Your task to perform on an android device: add a contact in the contacts app Image 0: 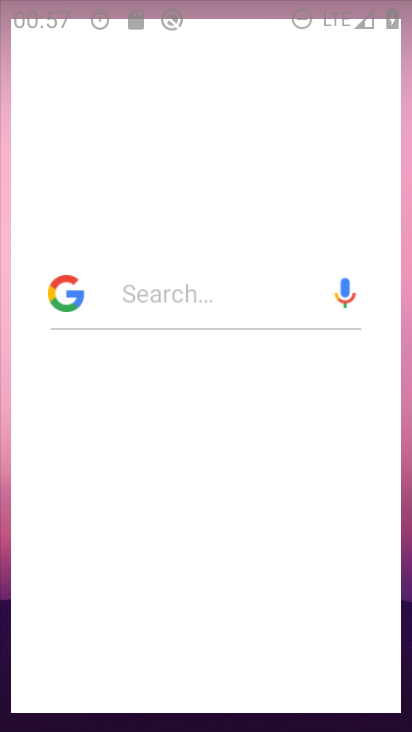
Step 0: drag from (329, 400) to (328, 308)
Your task to perform on an android device: add a contact in the contacts app Image 1: 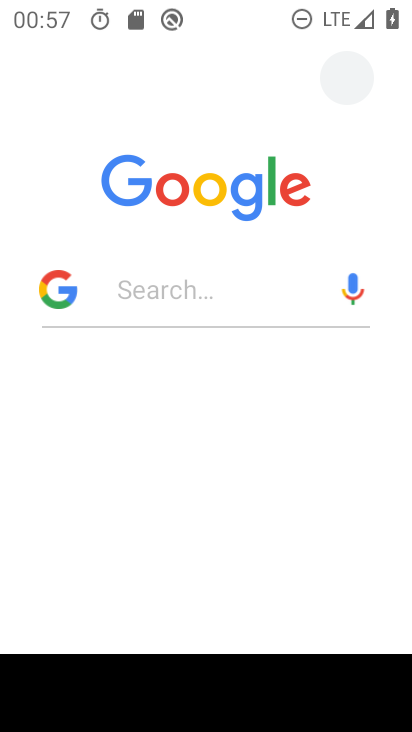
Step 1: press home button
Your task to perform on an android device: add a contact in the contacts app Image 2: 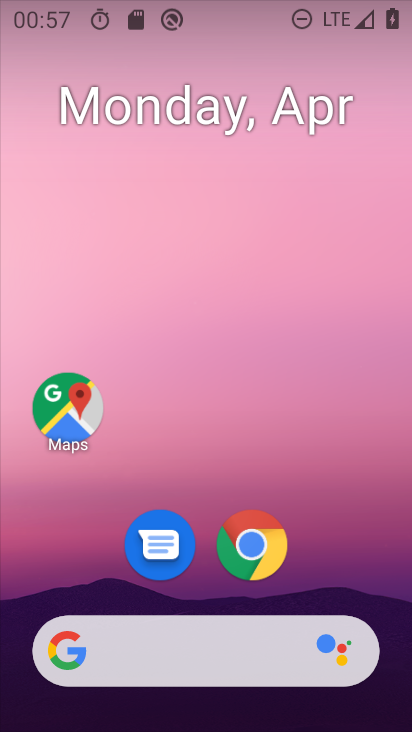
Step 2: click (326, 238)
Your task to perform on an android device: add a contact in the contacts app Image 3: 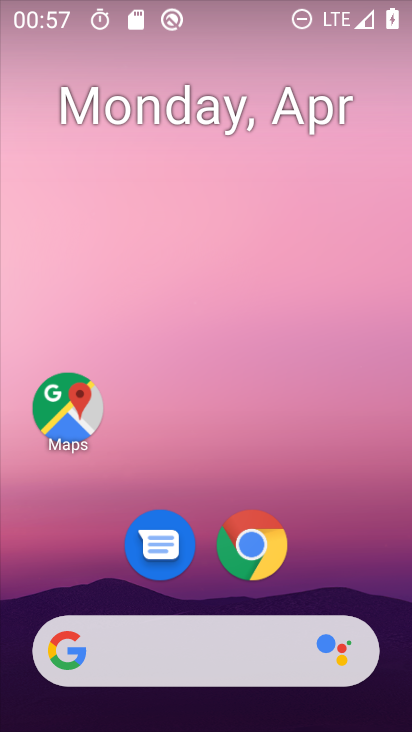
Step 3: drag from (326, 576) to (322, 295)
Your task to perform on an android device: add a contact in the contacts app Image 4: 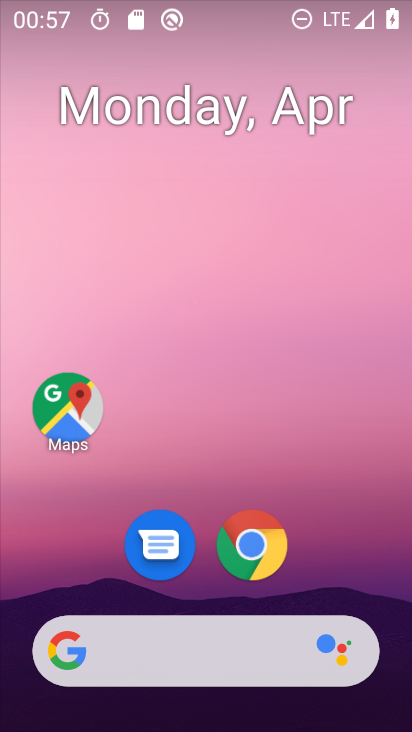
Step 4: drag from (300, 565) to (300, 267)
Your task to perform on an android device: add a contact in the contacts app Image 5: 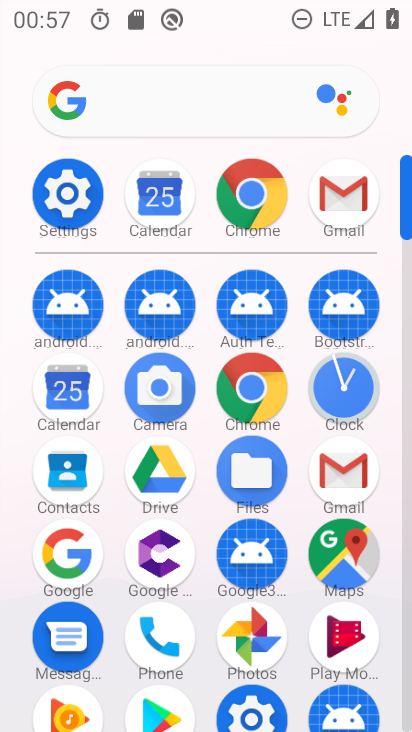
Step 5: click (141, 620)
Your task to perform on an android device: add a contact in the contacts app Image 6: 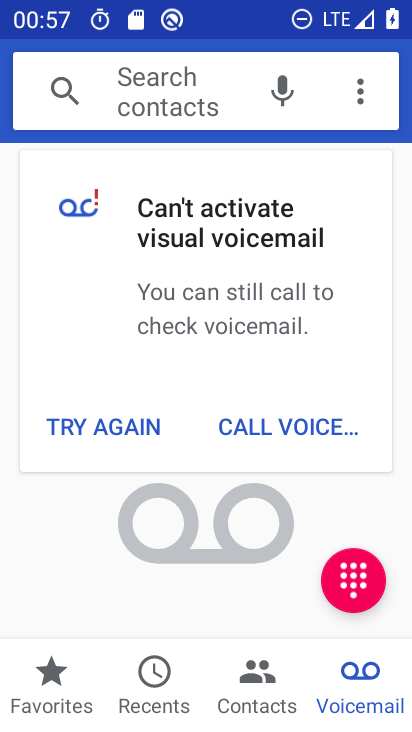
Step 6: click (68, 688)
Your task to perform on an android device: add a contact in the contacts app Image 7: 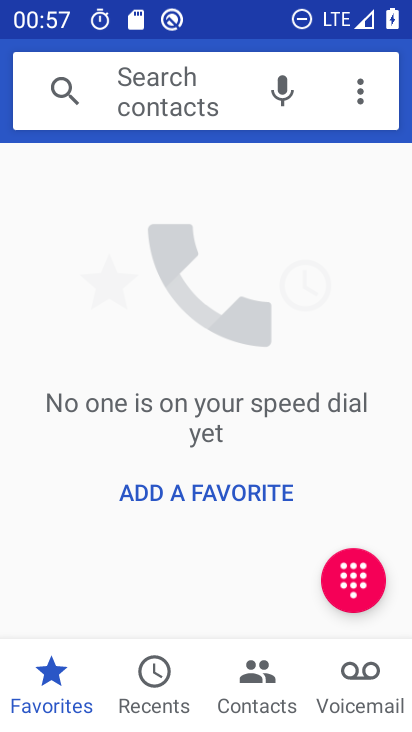
Step 7: click (230, 490)
Your task to perform on an android device: add a contact in the contacts app Image 8: 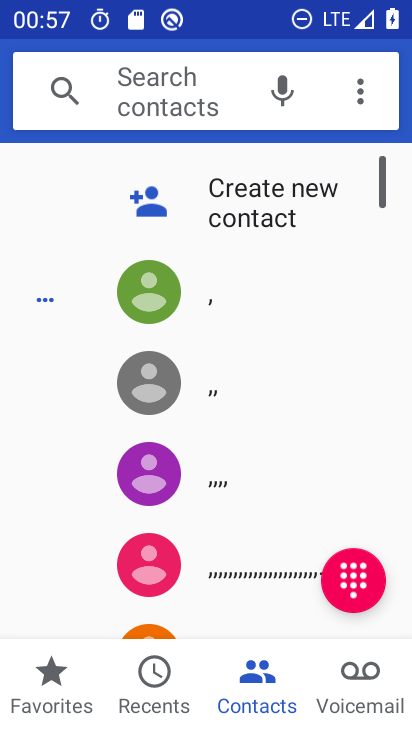
Step 8: click (238, 206)
Your task to perform on an android device: add a contact in the contacts app Image 9: 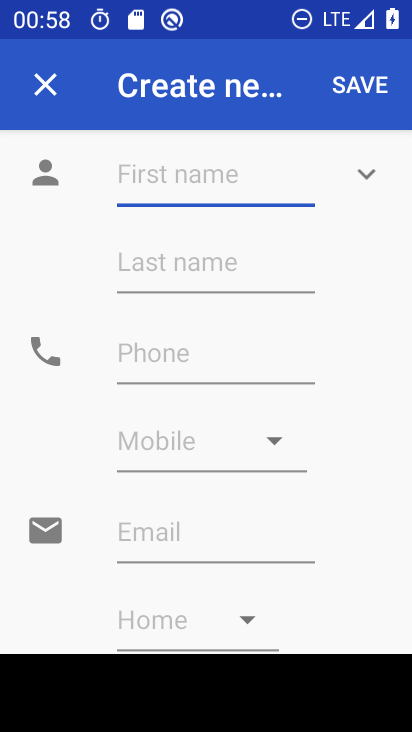
Step 9: type "asaasasasfffff"
Your task to perform on an android device: add a contact in the contacts app Image 10: 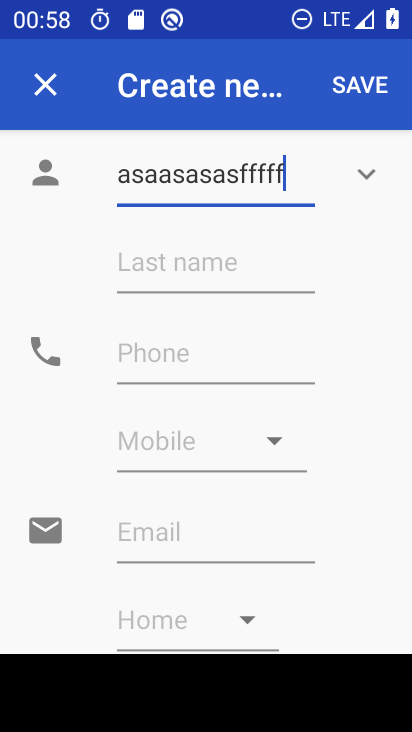
Step 10: click (217, 340)
Your task to perform on an android device: add a contact in the contacts app Image 11: 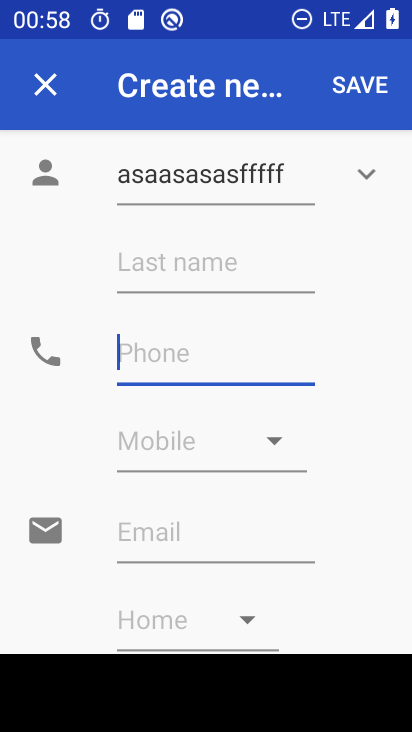
Step 11: type "9999999999999999999999"
Your task to perform on an android device: add a contact in the contacts app Image 12: 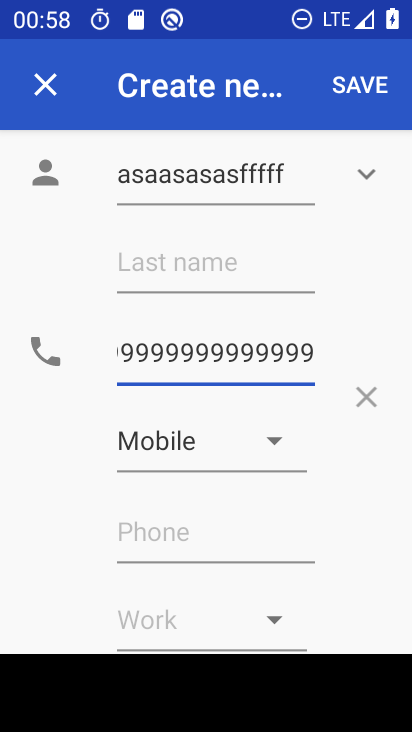
Step 12: click (368, 78)
Your task to perform on an android device: add a contact in the contacts app Image 13: 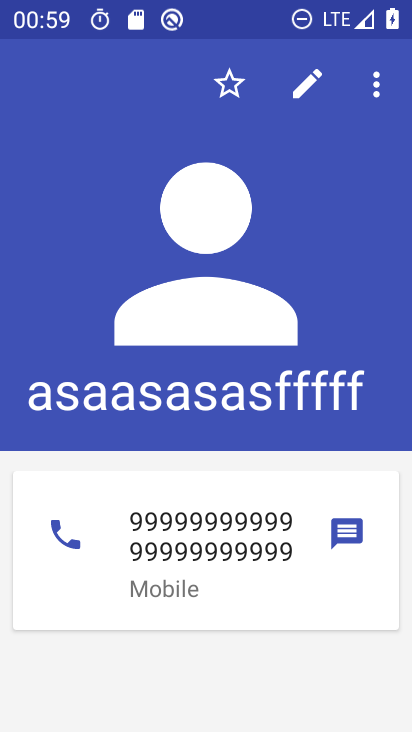
Step 13: task complete